Your task to perform on an android device: Go to accessibility settings Image 0: 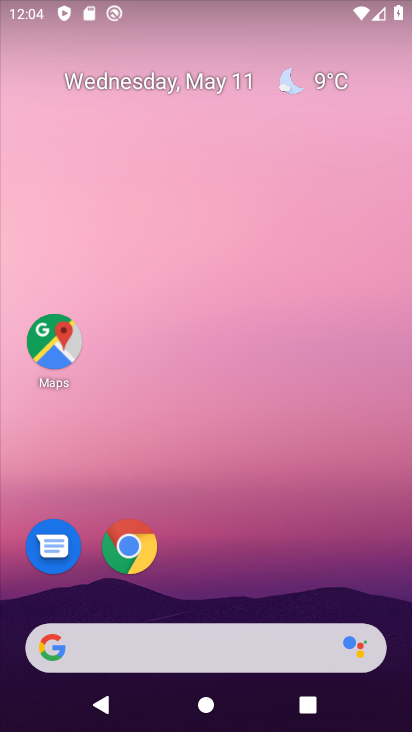
Step 0: drag from (345, 603) to (239, 7)
Your task to perform on an android device: Go to accessibility settings Image 1: 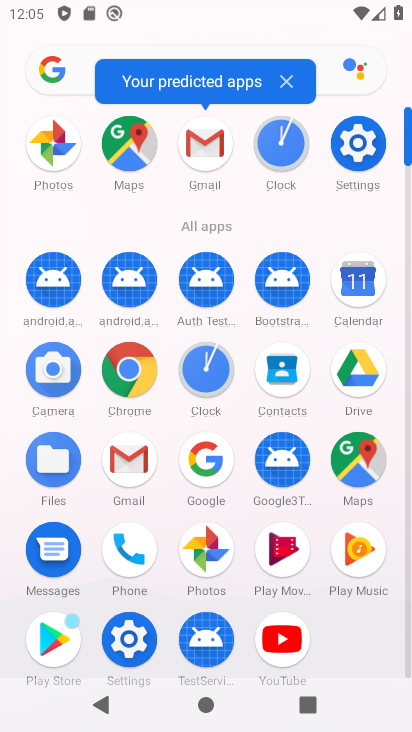
Step 1: click (365, 154)
Your task to perform on an android device: Go to accessibility settings Image 2: 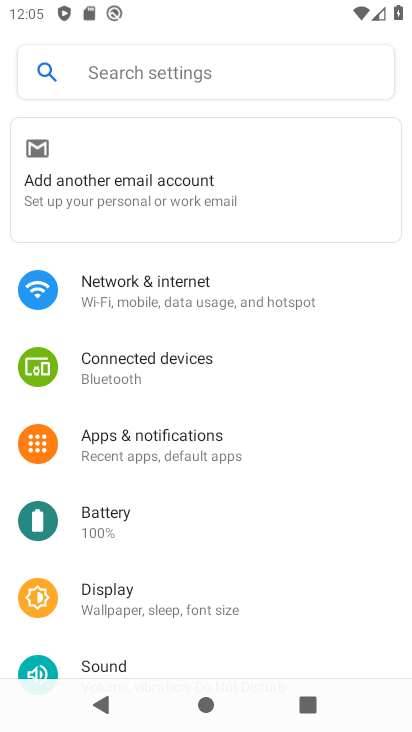
Step 2: drag from (221, 586) to (201, 48)
Your task to perform on an android device: Go to accessibility settings Image 3: 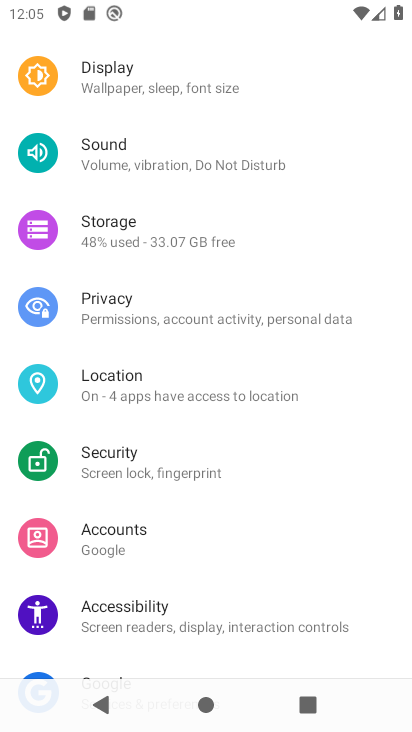
Step 3: drag from (241, 585) to (260, 186)
Your task to perform on an android device: Go to accessibility settings Image 4: 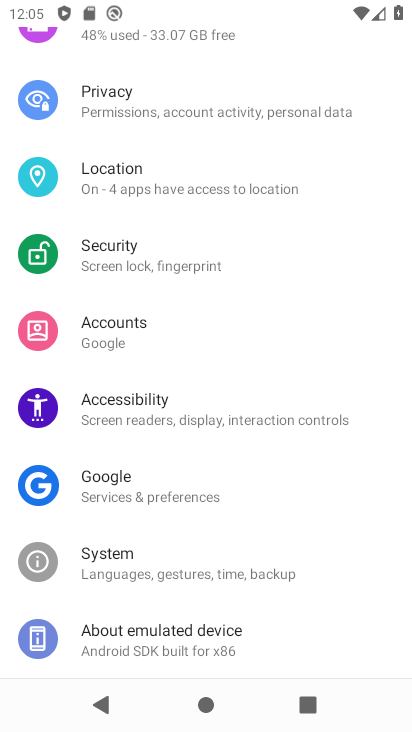
Step 4: click (173, 424)
Your task to perform on an android device: Go to accessibility settings Image 5: 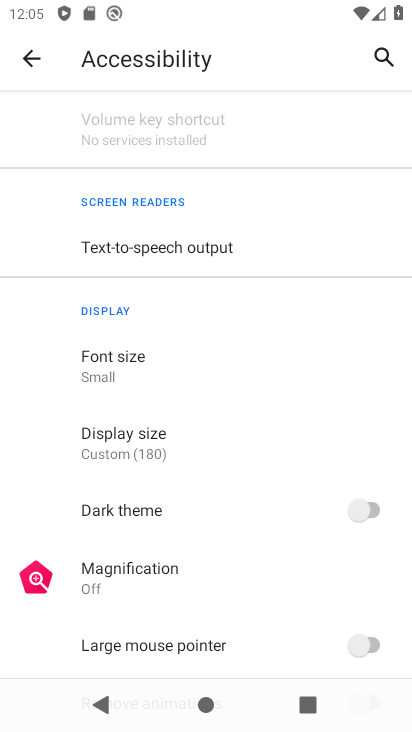
Step 5: task complete